Your task to perform on an android device: change notification settings in the gmail app Image 0: 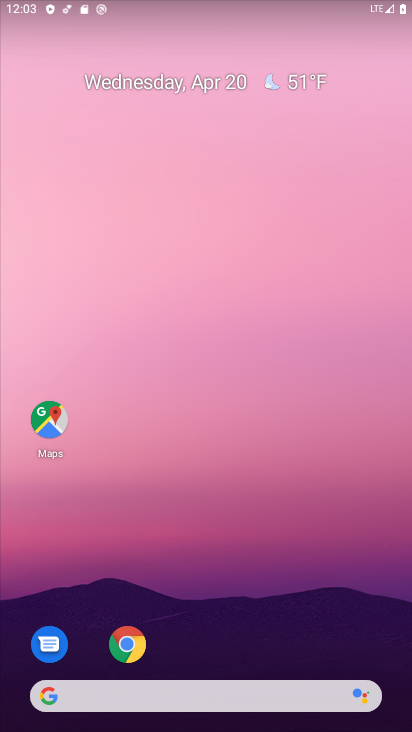
Step 0: drag from (207, 728) to (210, 170)
Your task to perform on an android device: change notification settings in the gmail app Image 1: 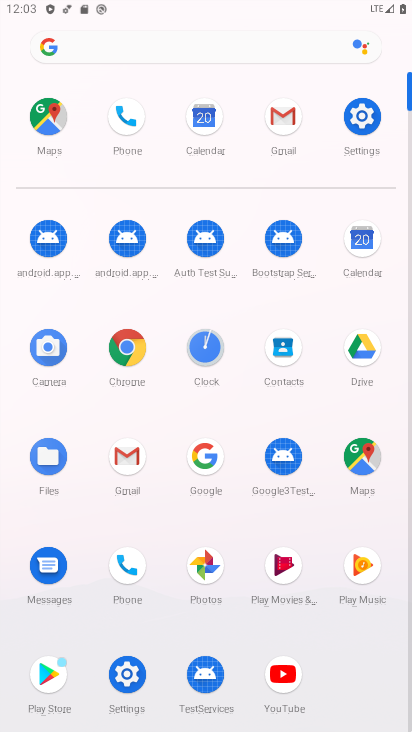
Step 1: click (129, 451)
Your task to perform on an android device: change notification settings in the gmail app Image 2: 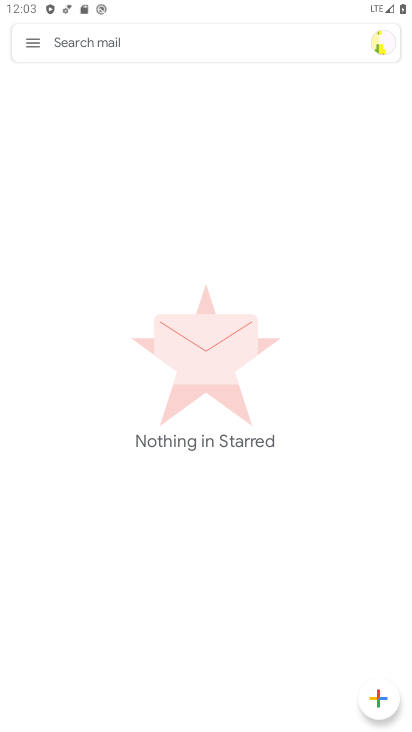
Step 2: click (28, 40)
Your task to perform on an android device: change notification settings in the gmail app Image 3: 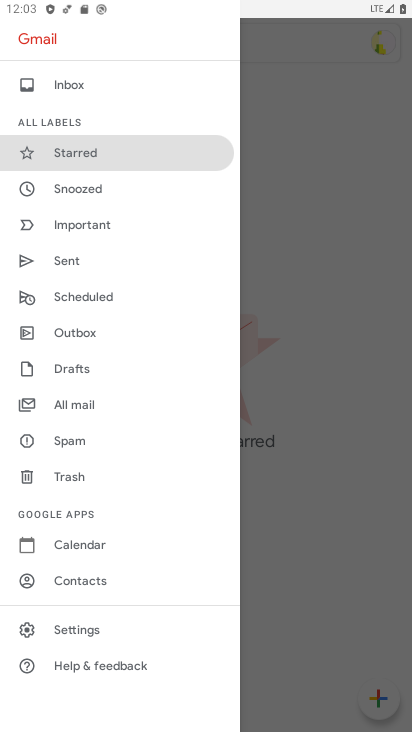
Step 3: click (70, 627)
Your task to perform on an android device: change notification settings in the gmail app Image 4: 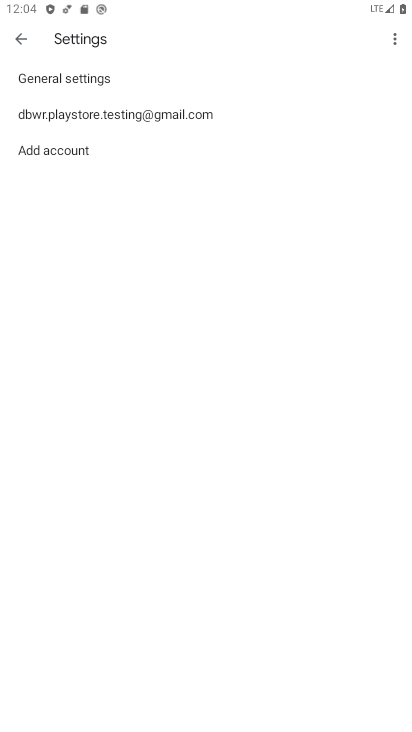
Step 4: click (147, 111)
Your task to perform on an android device: change notification settings in the gmail app Image 5: 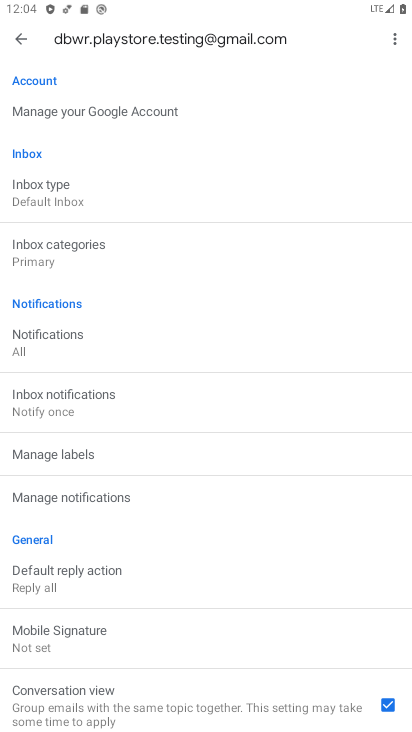
Step 5: click (58, 333)
Your task to perform on an android device: change notification settings in the gmail app Image 6: 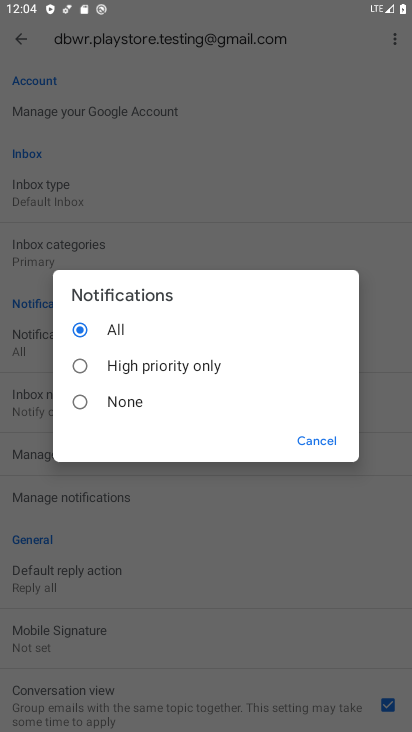
Step 6: click (81, 403)
Your task to perform on an android device: change notification settings in the gmail app Image 7: 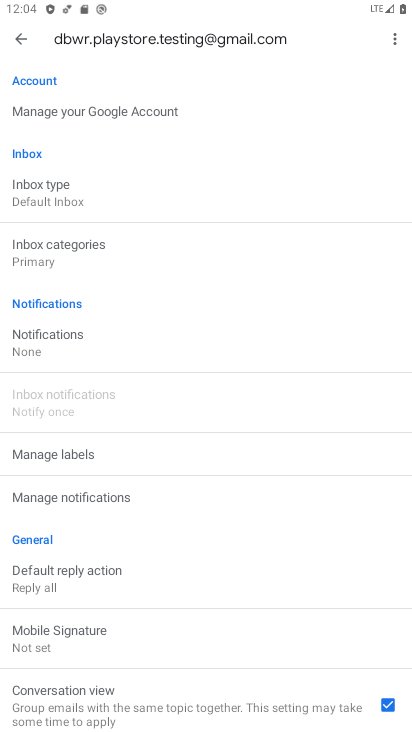
Step 7: task complete